Your task to perform on an android device: see sites visited before in the chrome app Image 0: 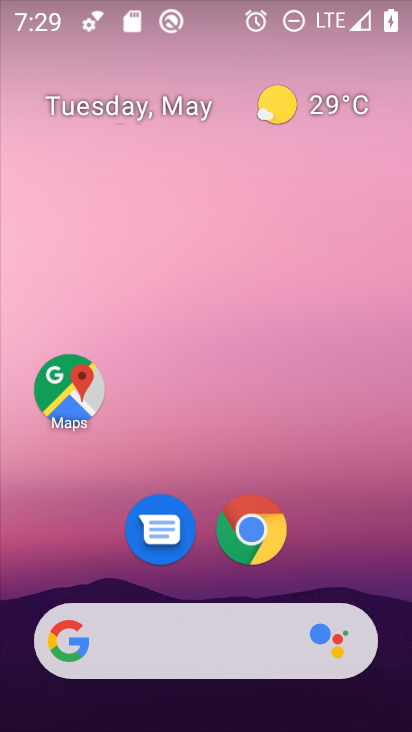
Step 0: drag from (396, 633) to (315, 96)
Your task to perform on an android device: see sites visited before in the chrome app Image 1: 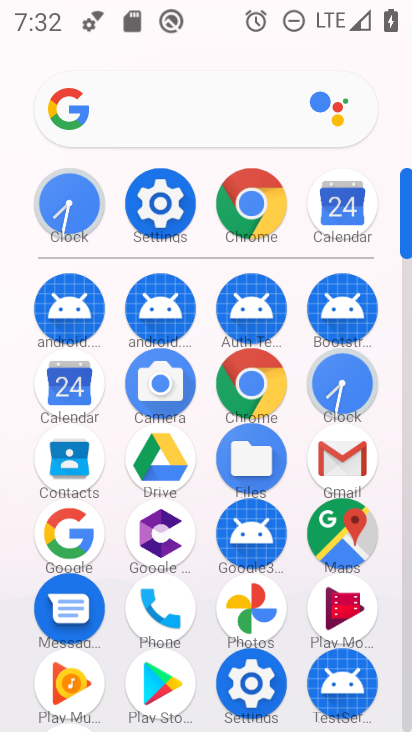
Step 1: click (264, 370)
Your task to perform on an android device: see sites visited before in the chrome app Image 2: 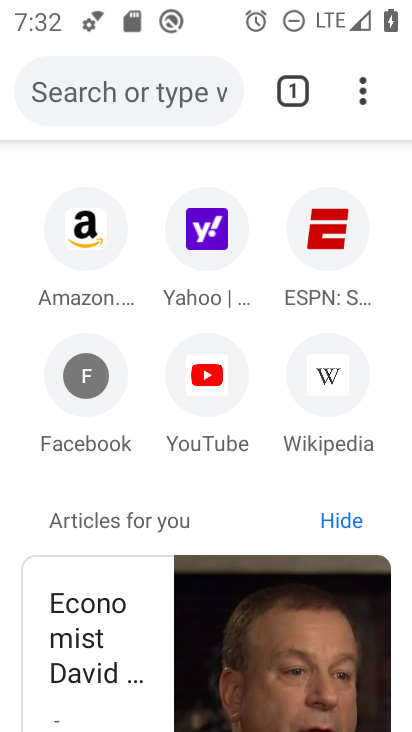
Step 2: click (367, 83)
Your task to perform on an android device: see sites visited before in the chrome app Image 3: 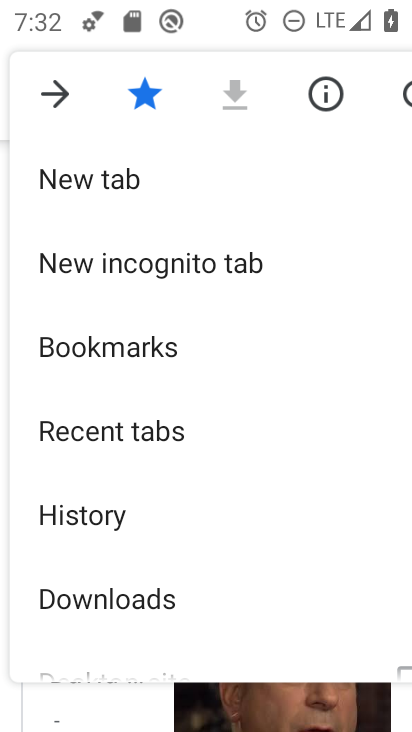
Step 3: click (98, 545)
Your task to perform on an android device: see sites visited before in the chrome app Image 4: 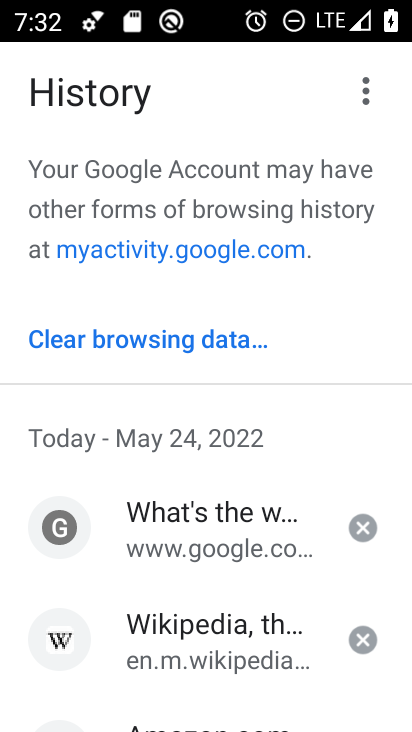
Step 4: click (157, 518)
Your task to perform on an android device: see sites visited before in the chrome app Image 5: 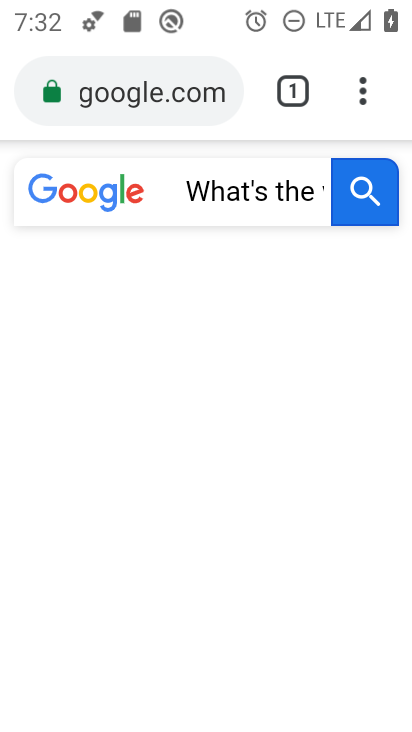
Step 5: task complete